Your task to perform on an android device: check google app version Image 0: 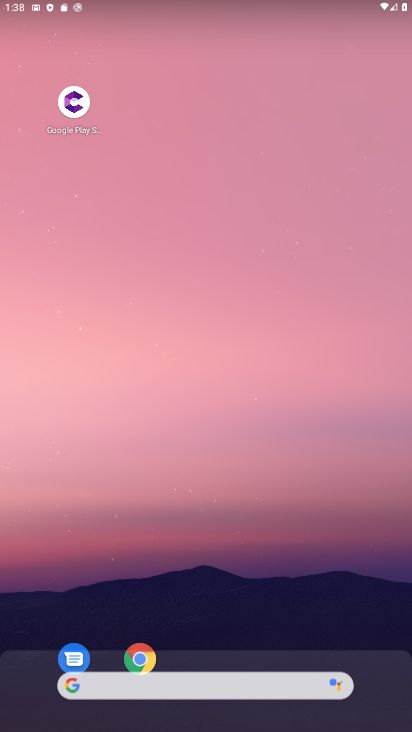
Step 0: drag from (200, 680) to (151, 112)
Your task to perform on an android device: check google app version Image 1: 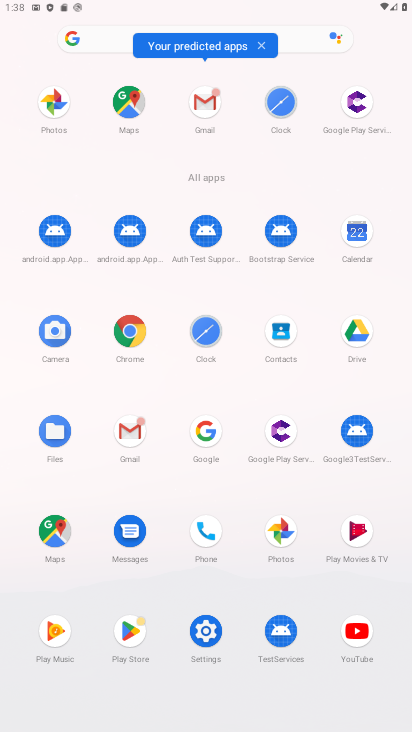
Step 1: click (202, 435)
Your task to perform on an android device: check google app version Image 2: 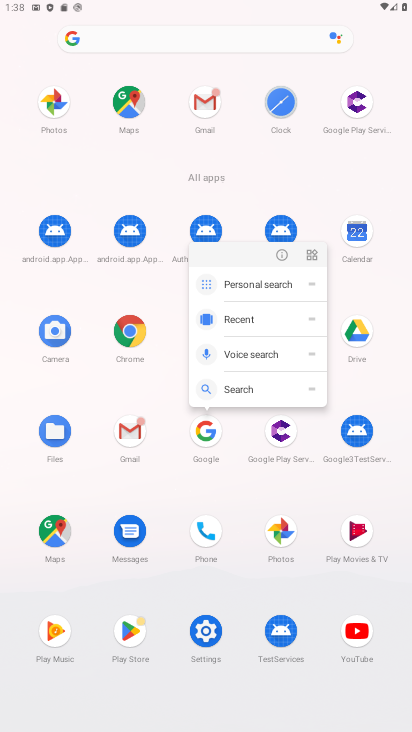
Step 2: click (284, 259)
Your task to perform on an android device: check google app version Image 3: 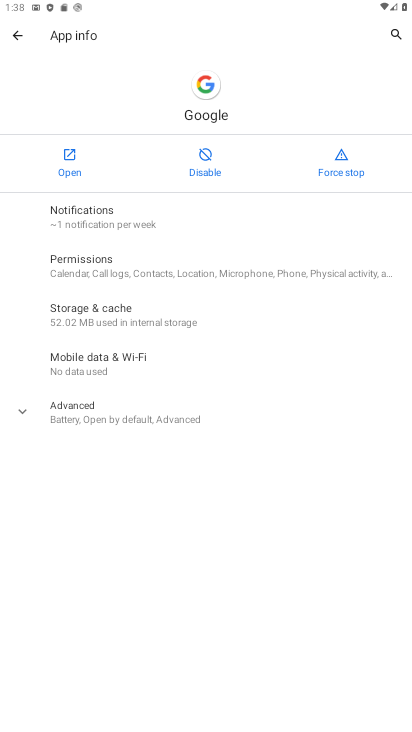
Step 3: click (103, 416)
Your task to perform on an android device: check google app version Image 4: 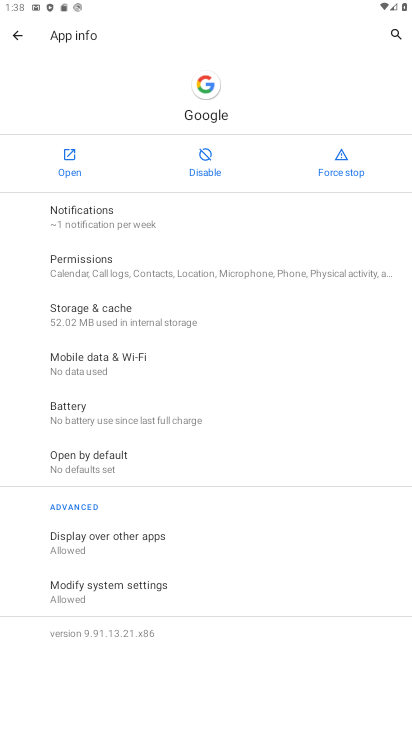
Step 4: task complete